Your task to perform on an android device: change the upload size in google photos Image 0: 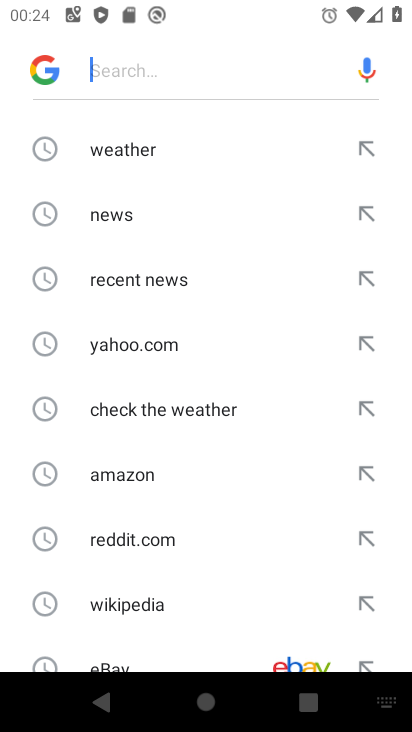
Step 0: press back button
Your task to perform on an android device: change the upload size in google photos Image 1: 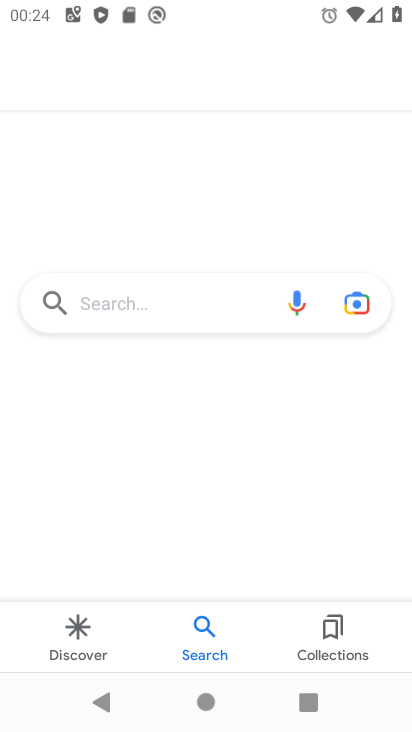
Step 1: press back button
Your task to perform on an android device: change the upload size in google photos Image 2: 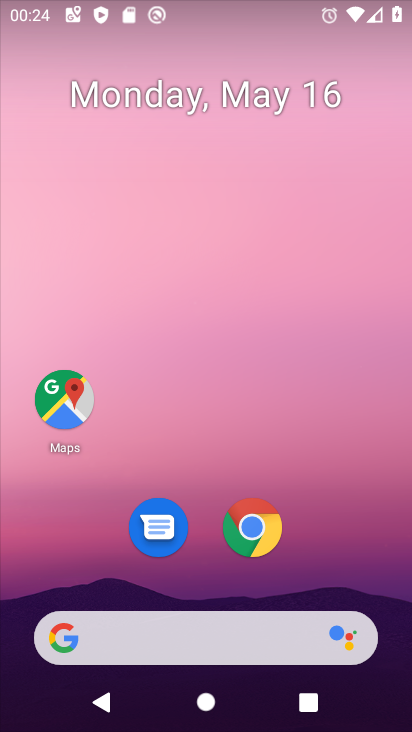
Step 2: drag from (347, 485) to (352, 178)
Your task to perform on an android device: change the upload size in google photos Image 3: 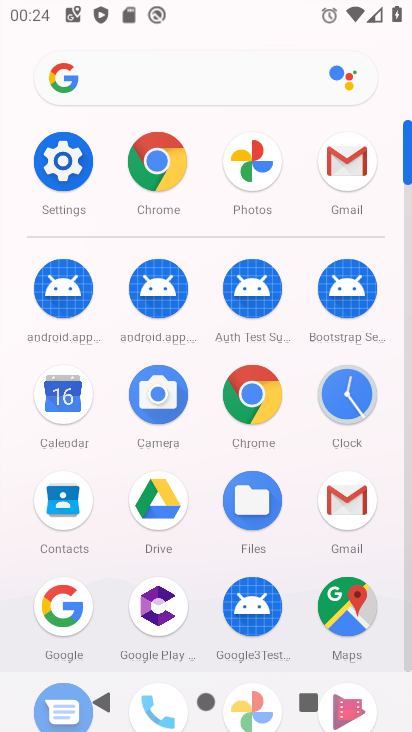
Step 3: click (254, 184)
Your task to perform on an android device: change the upload size in google photos Image 4: 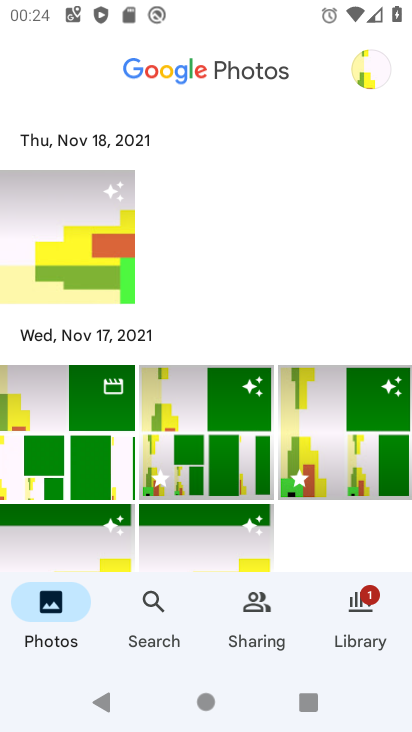
Step 4: click (350, 611)
Your task to perform on an android device: change the upload size in google photos Image 5: 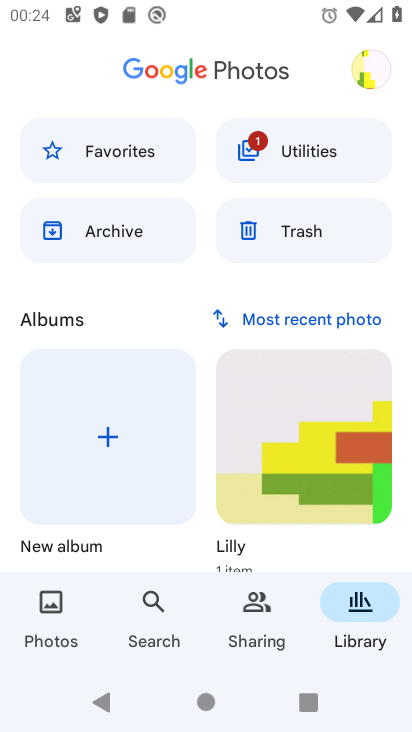
Step 5: click (354, 56)
Your task to perform on an android device: change the upload size in google photos Image 6: 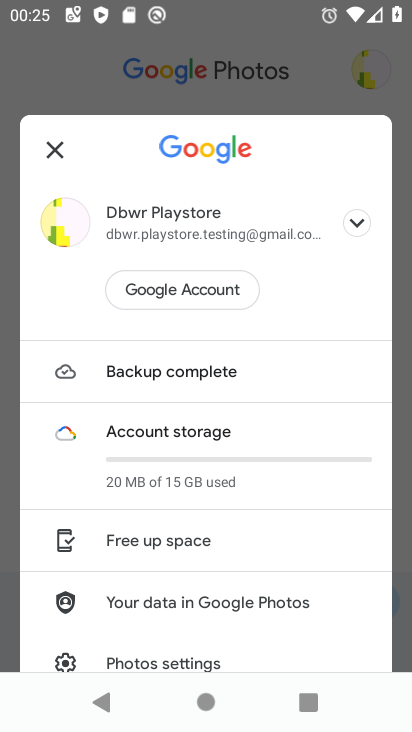
Step 6: drag from (253, 549) to (250, 322)
Your task to perform on an android device: change the upload size in google photos Image 7: 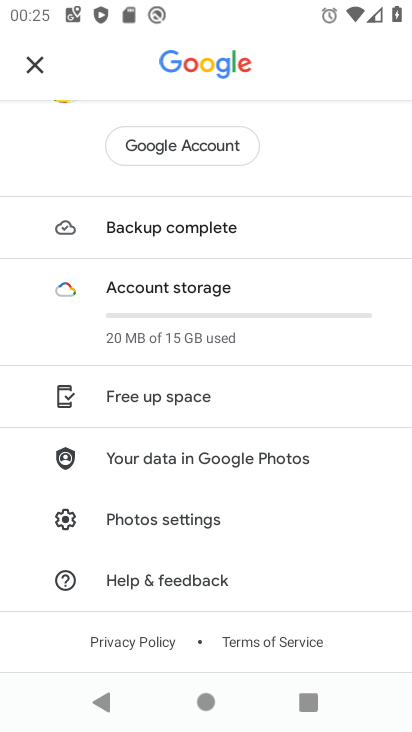
Step 7: click (252, 499)
Your task to perform on an android device: change the upload size in google photos Image 8: 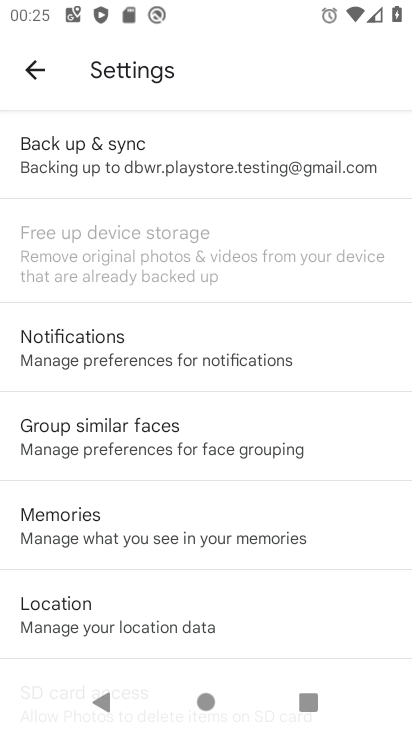
Step 8: drag from (252, 499) to (247, 295)
Your task to perform on an android device: change the upload size in google photos Image 9: 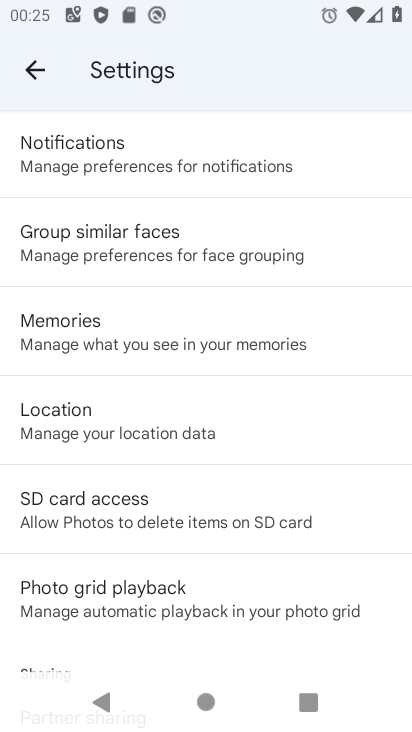
Step 9: drag from (199, 426) to (186, 185)
Your task to perform on an android device: change the upload size in google photos Image 10: 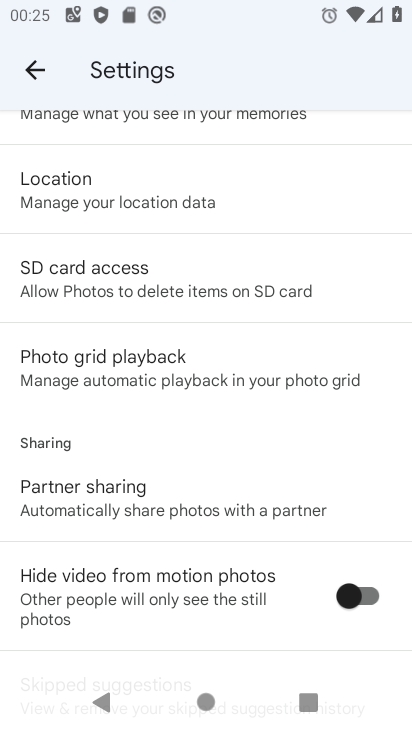
Step 10: drag from (230, 570) to (224, 107)
Your task to perform on an android device: change the upload size in google photos Image 11: 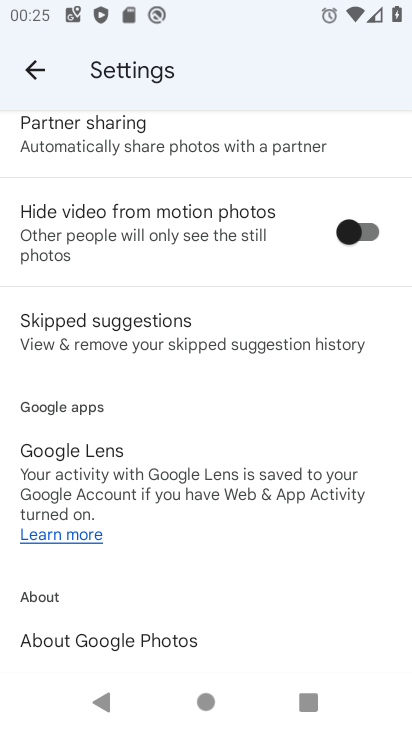
Step 11: drag from (200, 259) to (137, 643)
Your task to perform on an android device: change the upload size in google photos Image 12: 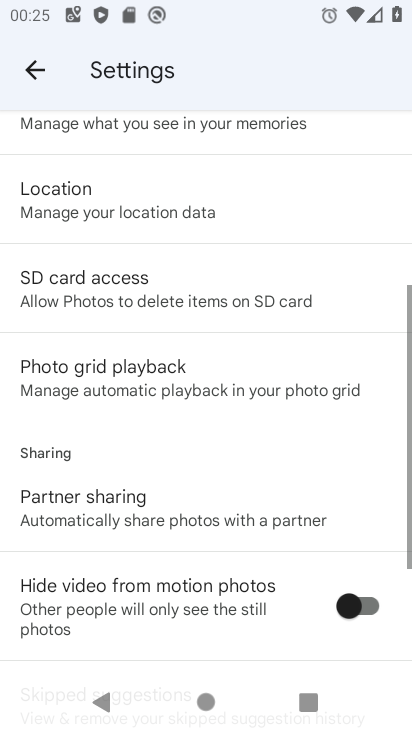
Step 12: drag from (131, 427) to (86, 711)
Your task to perform on an android device: change the upload size in google photos Image 13: 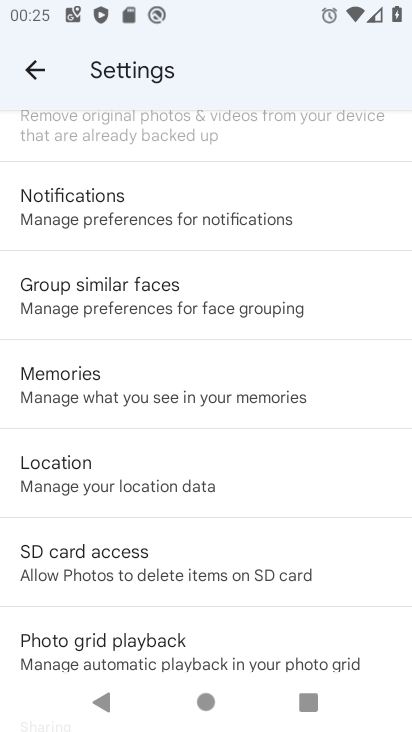
Step 13: drag from (167, 262) to (149, 499)
Your task to perform on an android device: change the upload size in google photos Image 14: 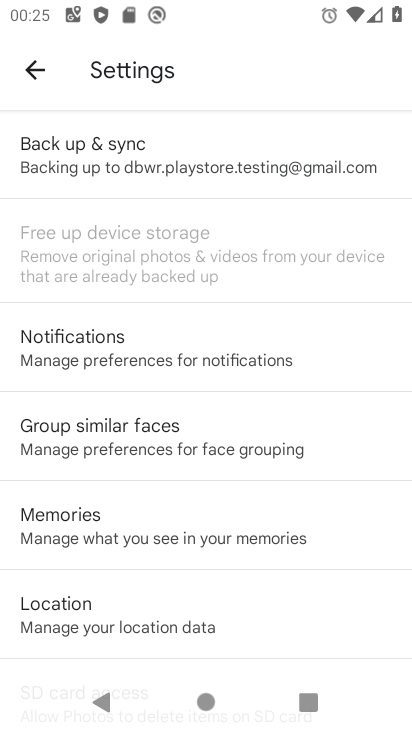
Step 14: click (179, 189)
Your task to perform on an android device: change the upload size in google photos Image 15: 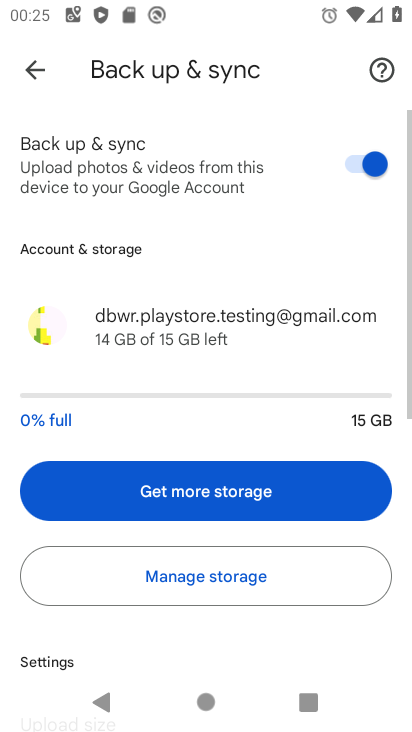
Step 15: drag from (203, 400) to (208, 308)
Your task to perform on an android device: change the upload size in google photos Image 16: 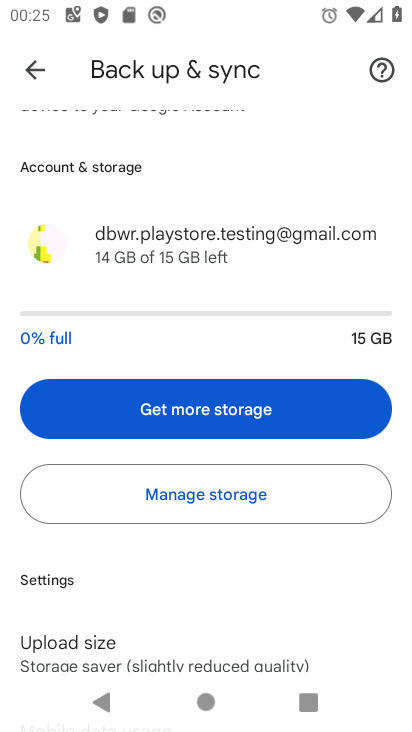
Step 16: drag from (224, 555) to (196, 388)
Your task to perform on an android device: change the upload size in google photos Image 17: 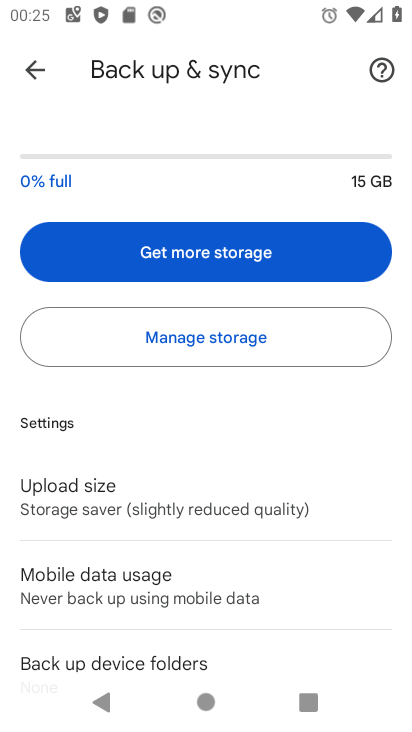
Step 17: click (132, 530)
Your task to perform on an android device: change the upload size in google photos Image 18: 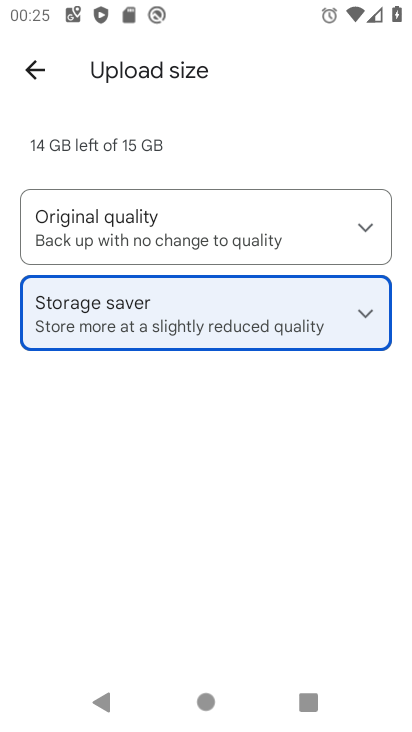
Step 18: click (172, 242)
Your task to perform on an android device: change the upload size in google photos Image 19: 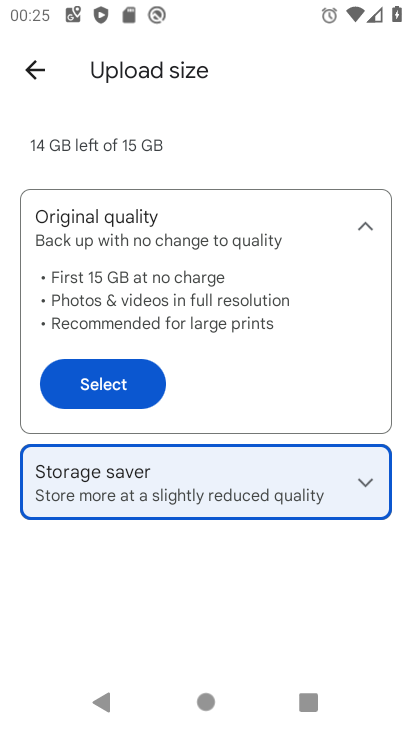
Step 19: task complete